Your task to perform on an android device: find photos in the google photos app Image 0: 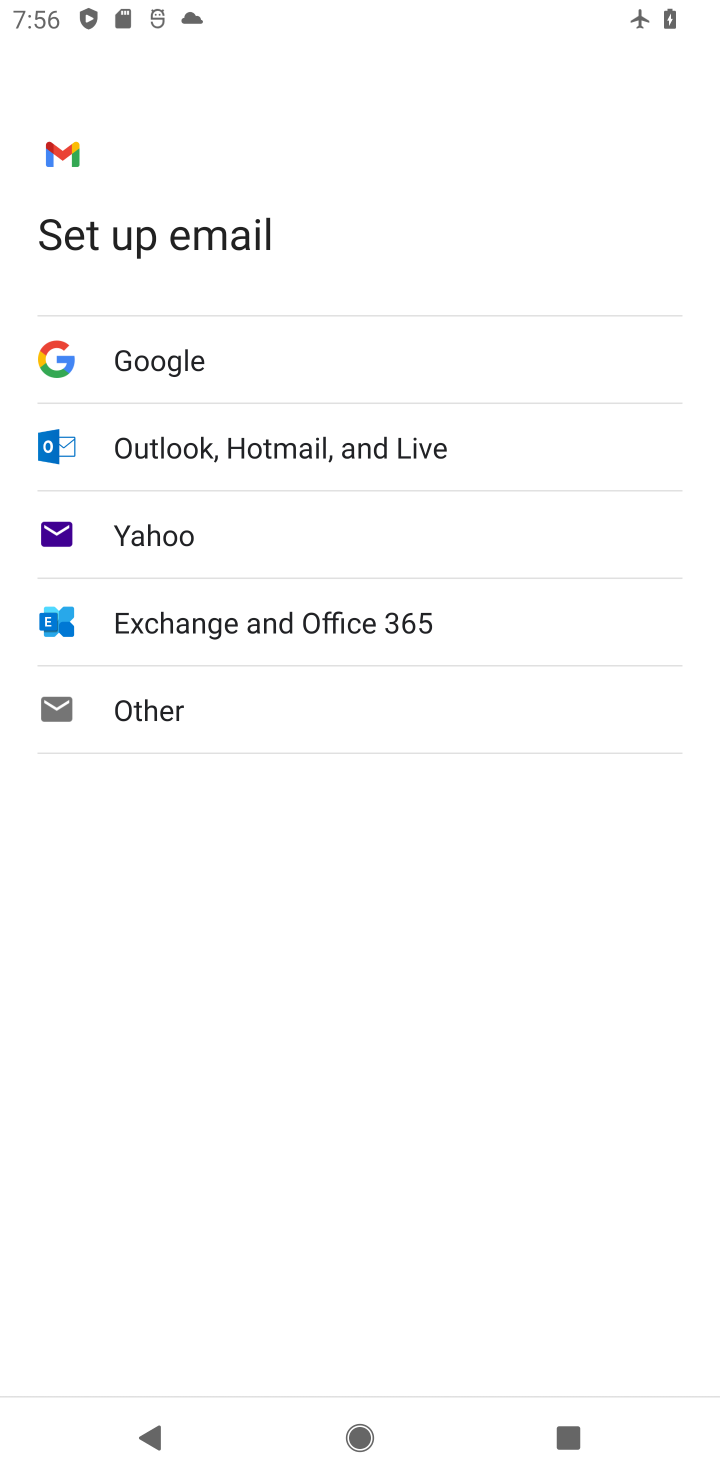
Step 0: press home button
Your task to perform on an android device: find photos in the google photos app Image 1: 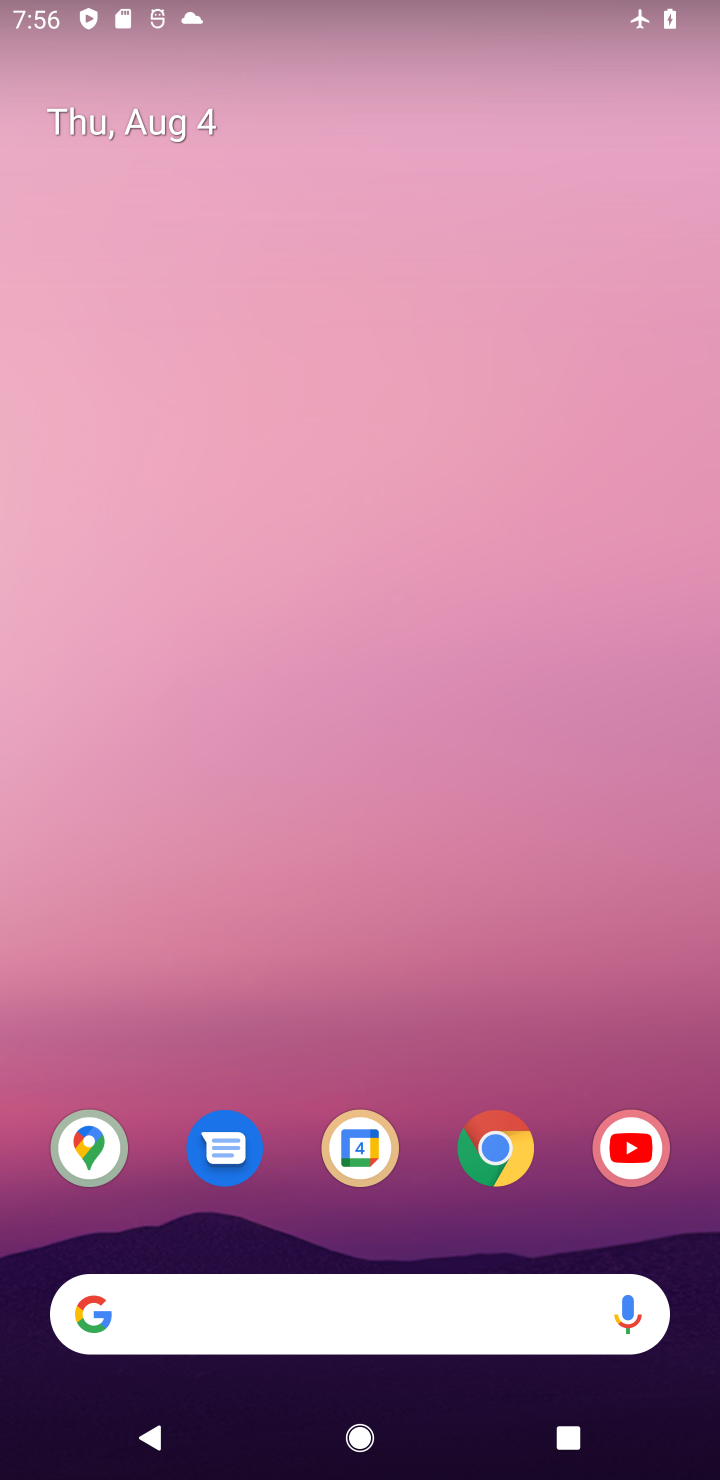
Step 1: drag from (547, 1080) to (458, 45)
Your task to perform on an android device: find photos in the google photos app Image 2: 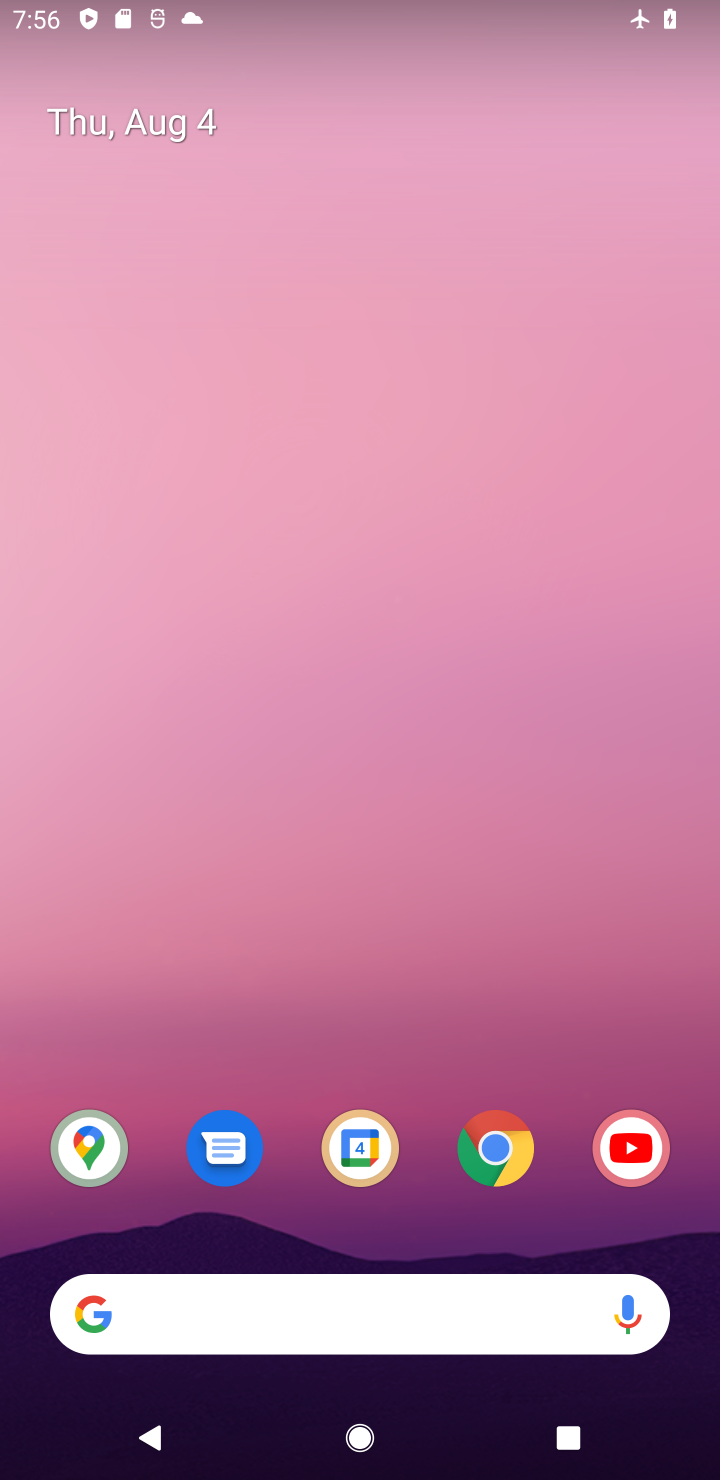
Step 2: drag from (565, 1177) to (292, 37)
Your task to perform on an android device: find photos in the google photos app Image 3: 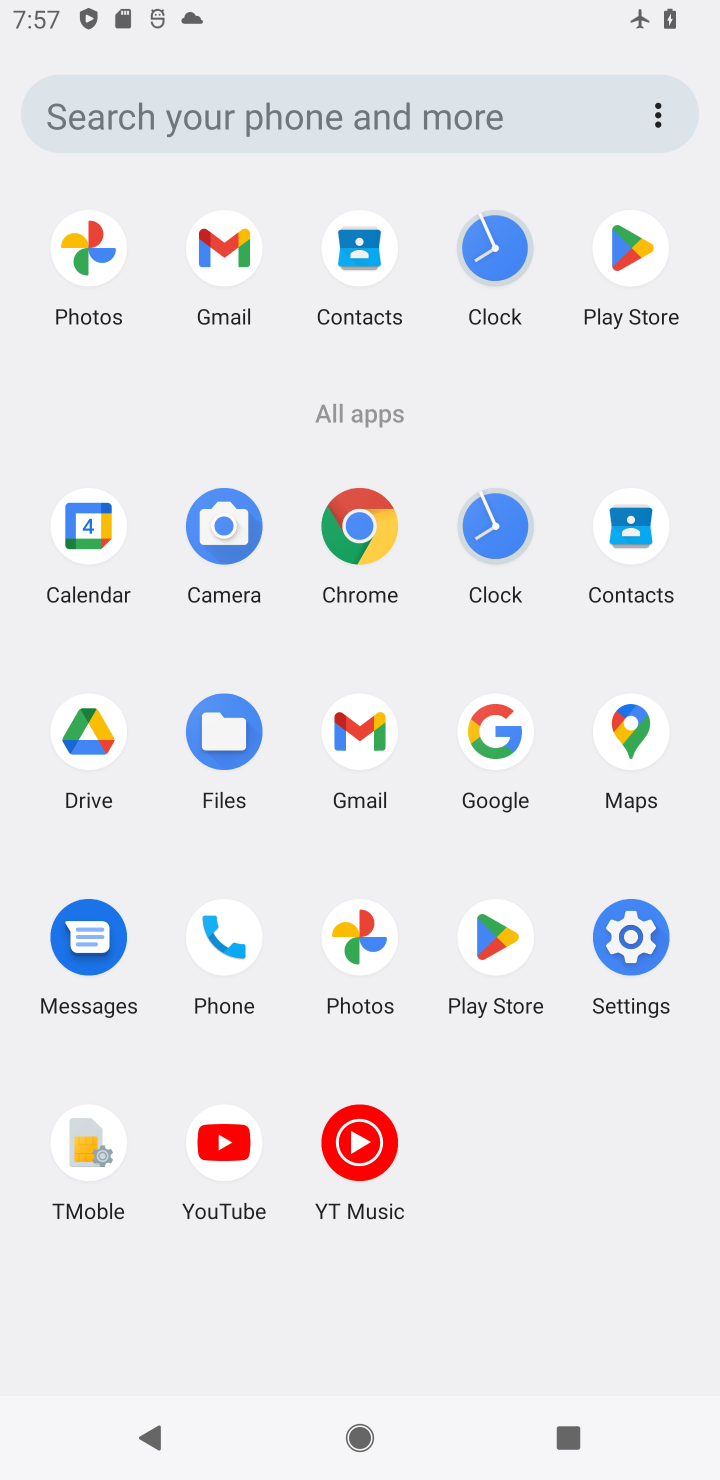
Step 3: click (84, 264)
Your task to perform on an android device: find photos in the google photos app Image 4: 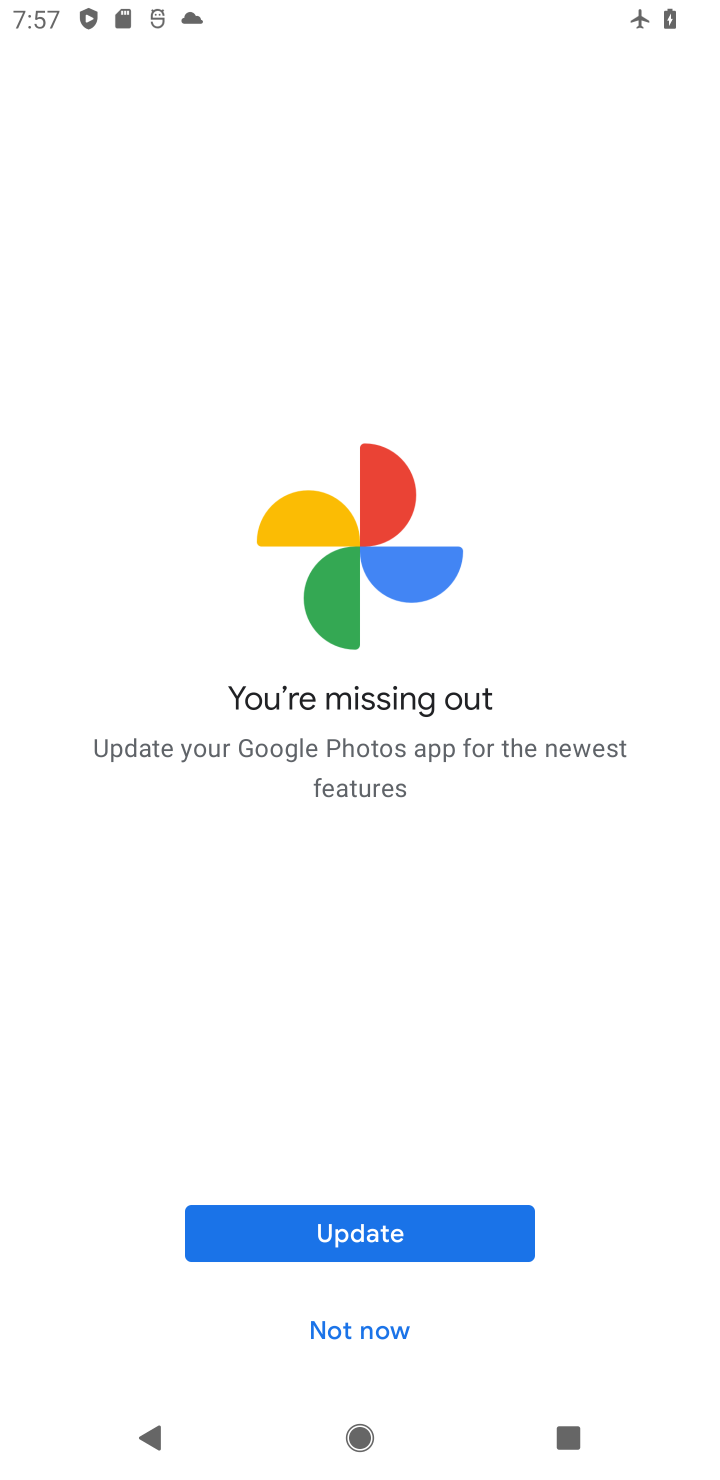
Step 4: click (365, 1245)
Your task to perform on an android device: find photos in the google photos app Image 5: 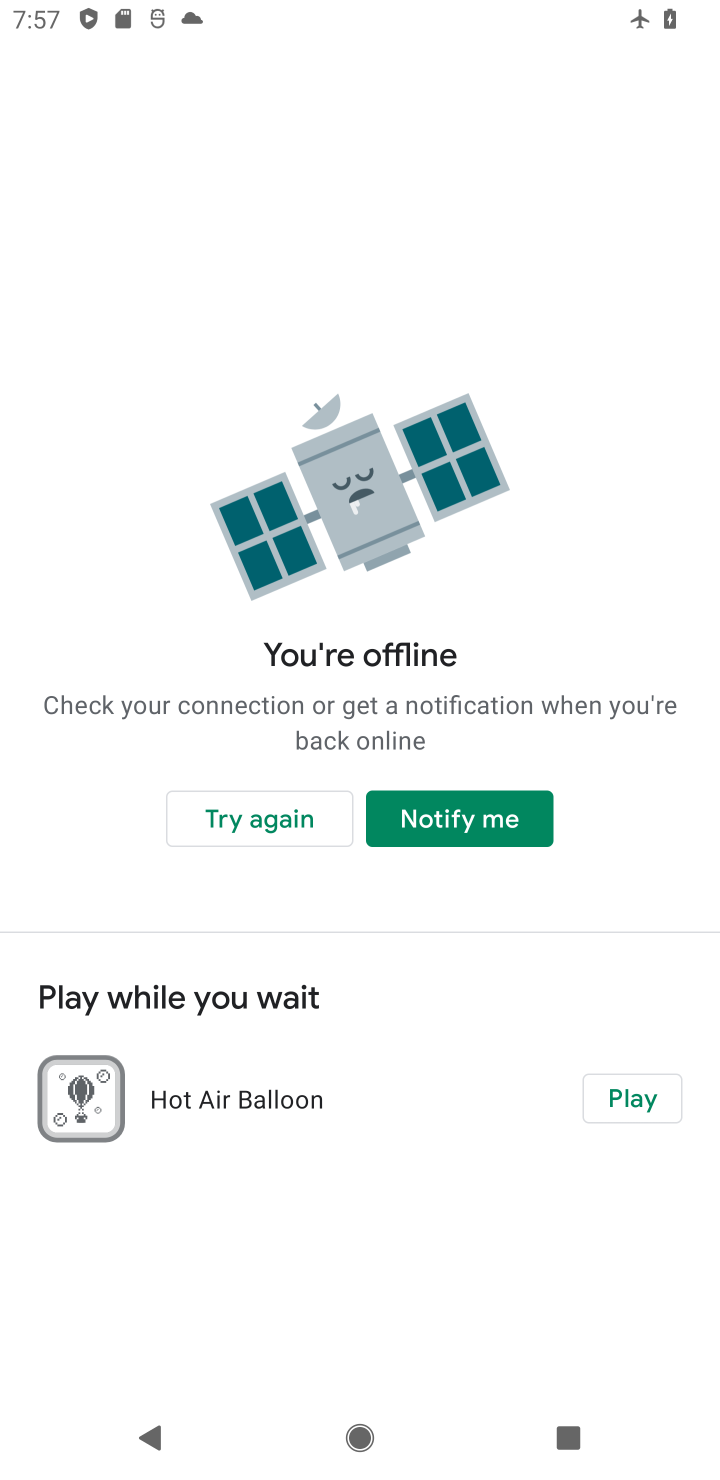
Step 5: task complete